Your task to perform on an android device: Search for pizza restaurants on Maps Image 0: 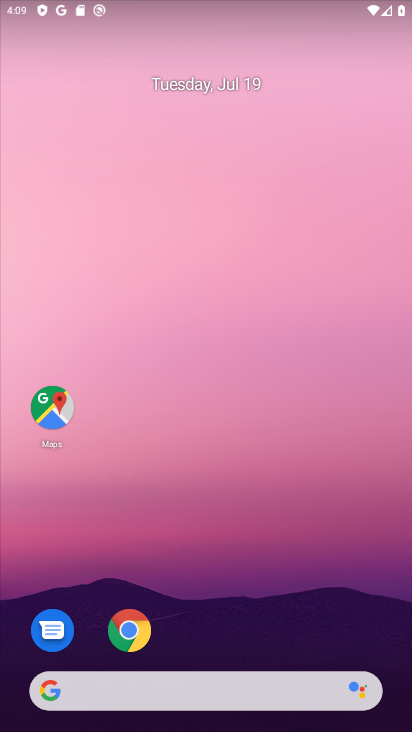
Step 0: press home button
Your task to perform on an android device: Search for pizza restaurants on Maps Image 1: 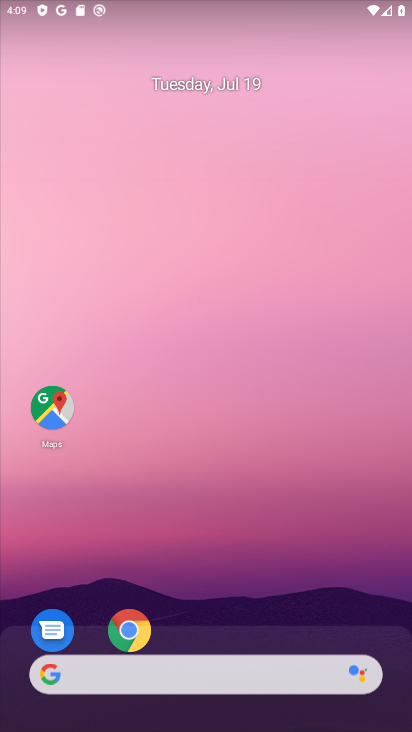
Step 1: click (33, 400)
Your task to perform on an android device: Search for pizza restaurants on Maps Image 2: 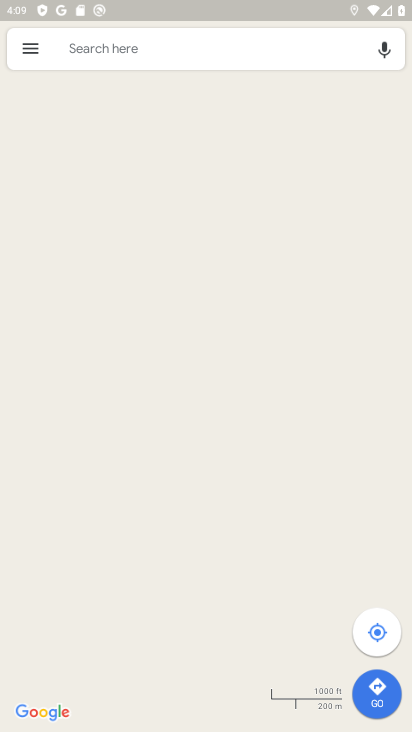
Step 2: click (160, 46)
Your task to perform on an android device: Search for pizza restaurants on Maps Image 3: 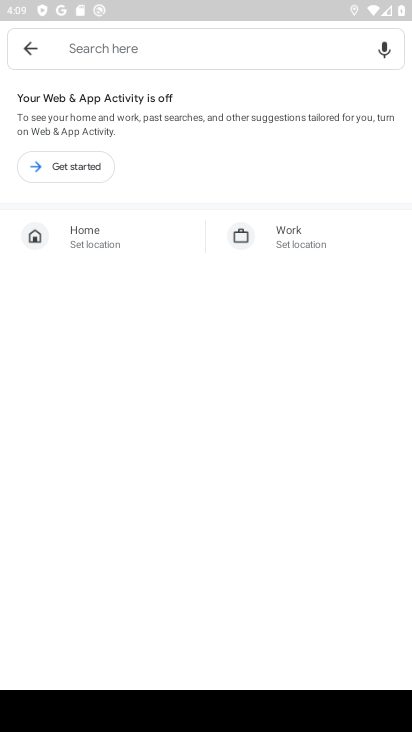
Step 3: type "pizza restaurants"
Your task to perform on an android device: Search for pizza restaurants on Maps Image 4: 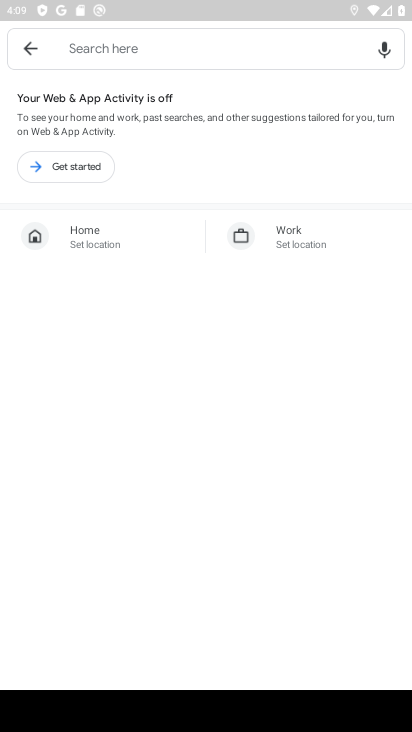
Step 4: click (97, 42)
Your task to perform on an android device: Search for pizza restaurants on Maps Image 5: 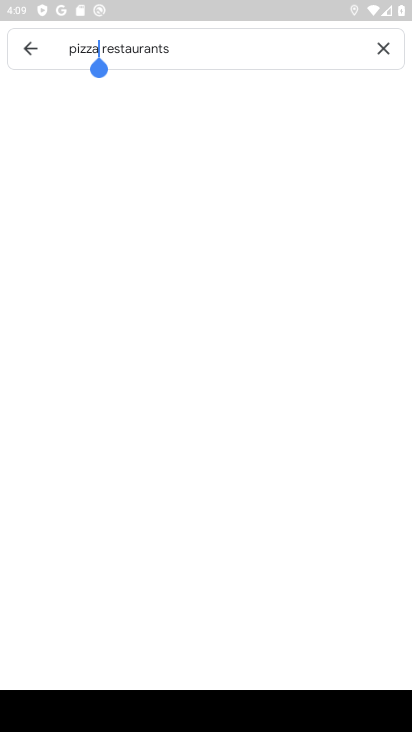
Step 5: press enter
Your task to perform on an android device: Search for pizza restaurants on Maps Image 6: 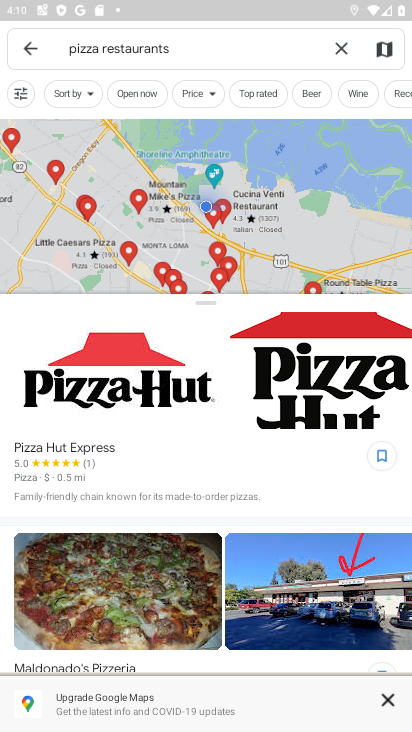
Step 6: task complete